Your task to perform on an android device: Open eBay Image 0: 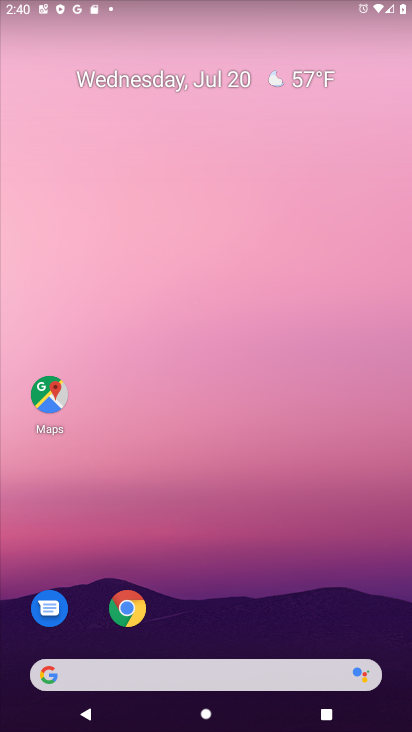
Step 0: drag from (177, 505) to (217, 228)
Your task to perform on an android device: Open eBay Image 1: 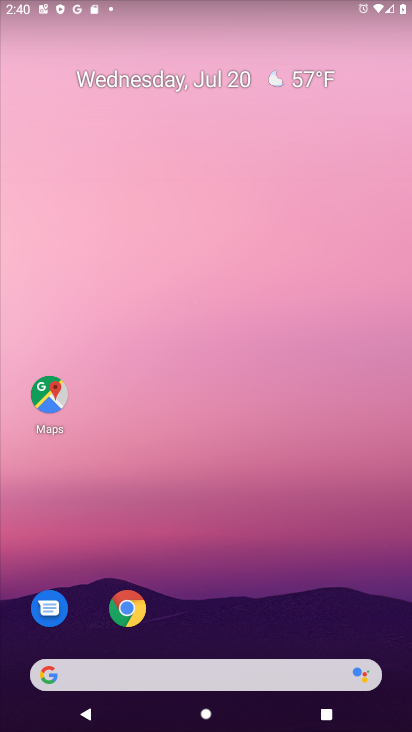
Step 1: drag from (185, 623) to (211, 89)
Your task to perform on an android device: Open eBay Image 2: 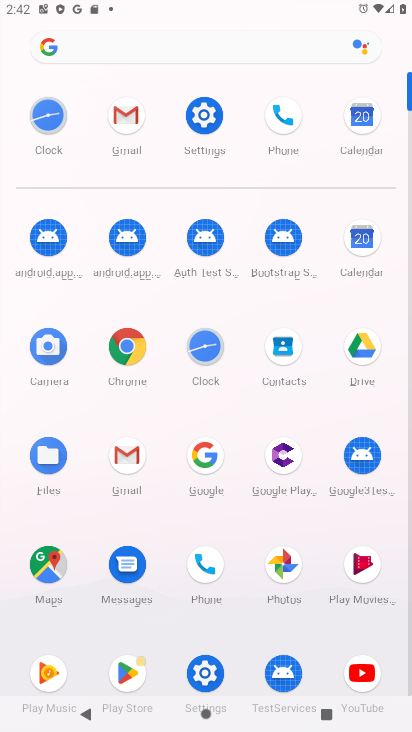
Step 2: click (118, 371)
Your task to perform on an android device: Open eBay Image 3: 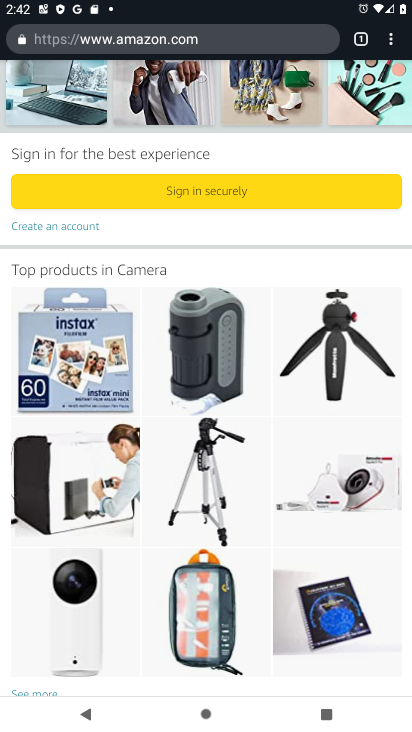
Step 3: click (175, 36)
Your task to perform on an android device: Open eBay Image 4: 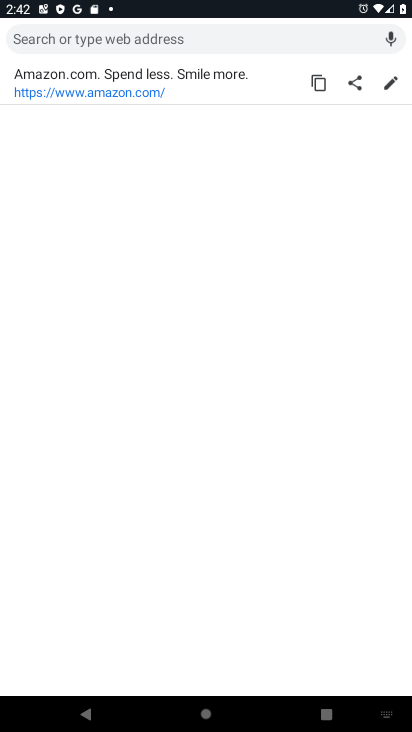
Step 4: type "www.ebay.com"
Your task to perform on an android device: Open eBay Image 5: 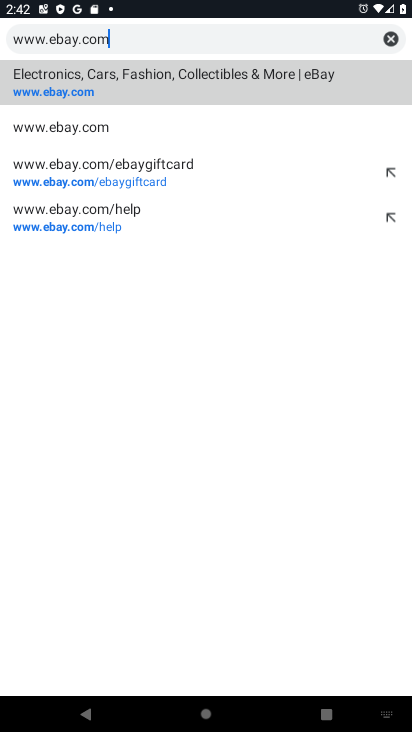
Step 5: click (68, 89)
Your task to perform on an android device: Open eBay Image 6: 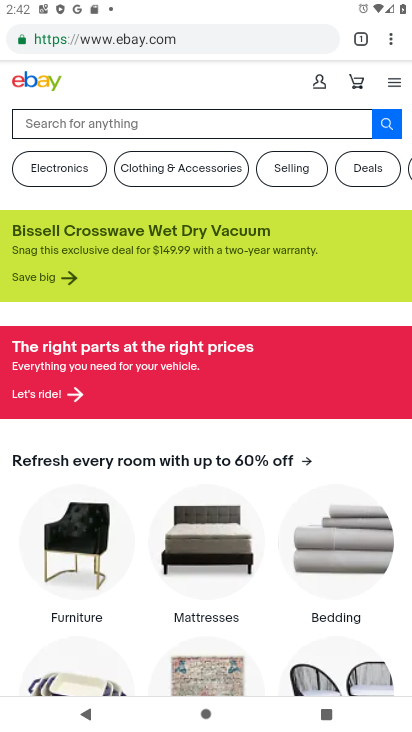
Step 6: task complete